Your task to perform on an android device: Clear all items from cart on bestbuy.com. Image 0: 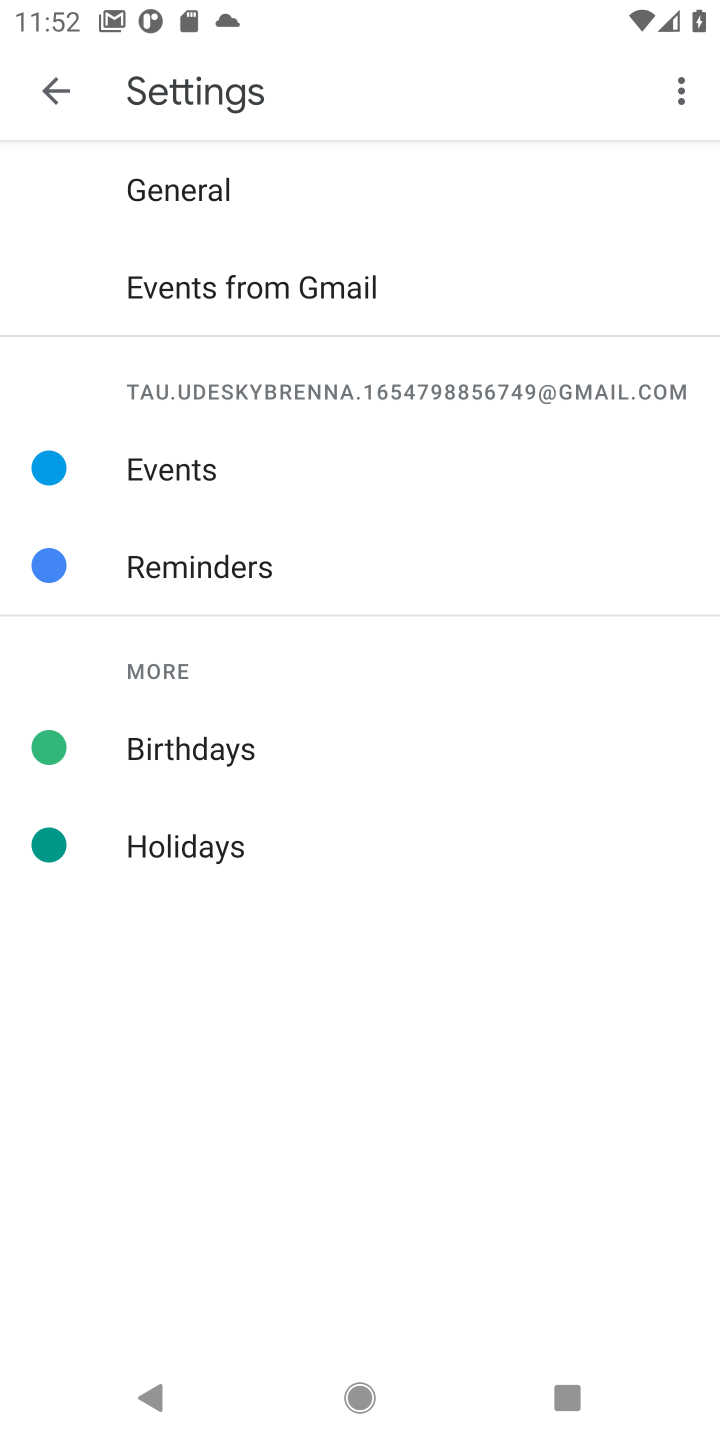
Step 0: press home button
Your task to perform on an android device: Clear all items from cart on bestbuy.com. Image 1: 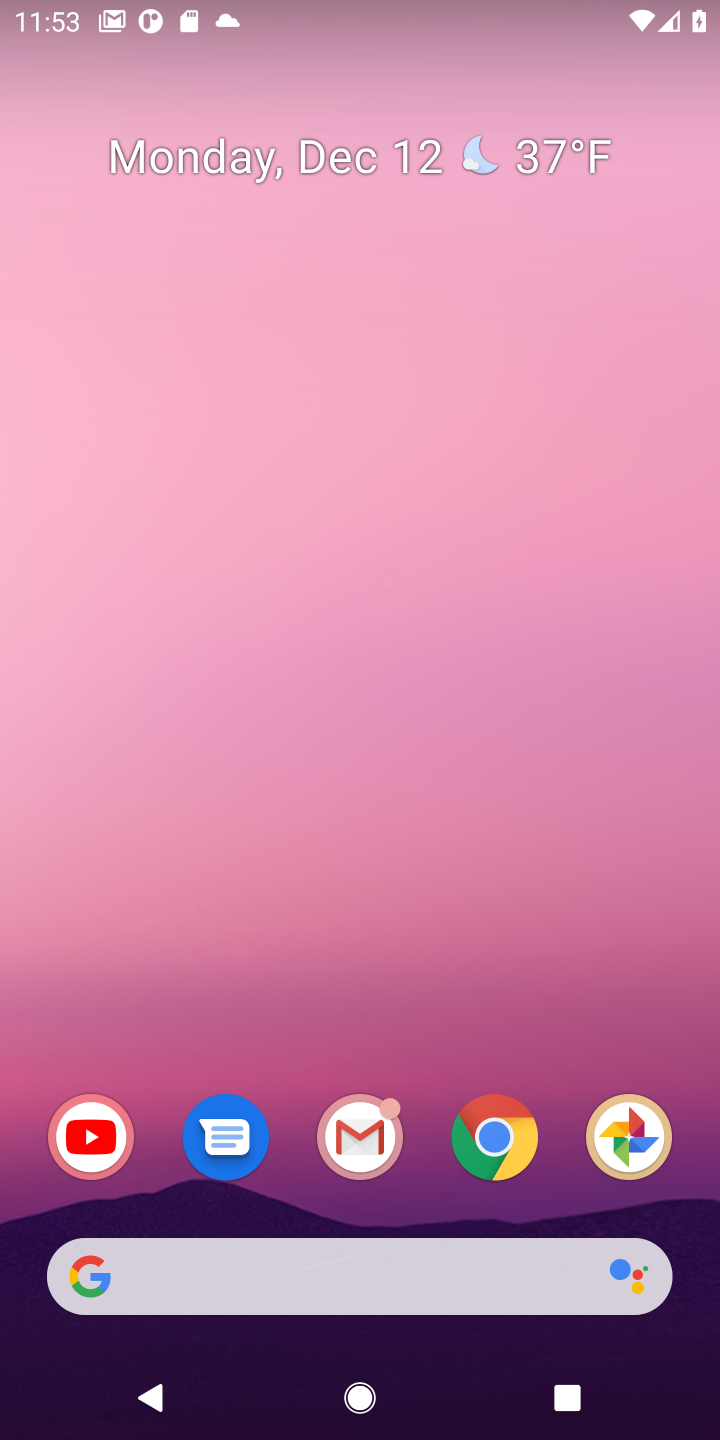
Step 1: click (505, 1116)
Your task to perform on an android device: Clear all items from cart on bestbuy.com. Image 2: 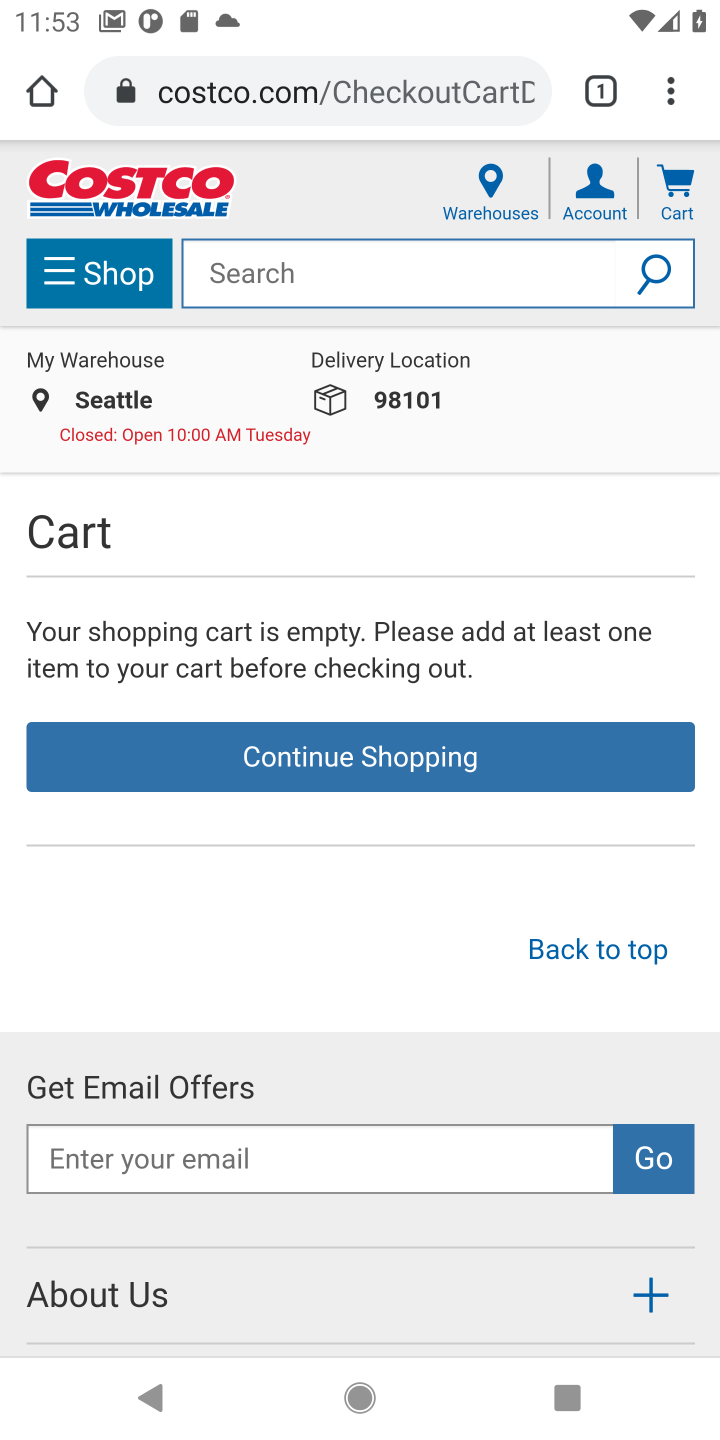
Step 2: click (245, 291)
Your task to perform on an android device: Clear all items from cart on bestbuy.com. Image 3: 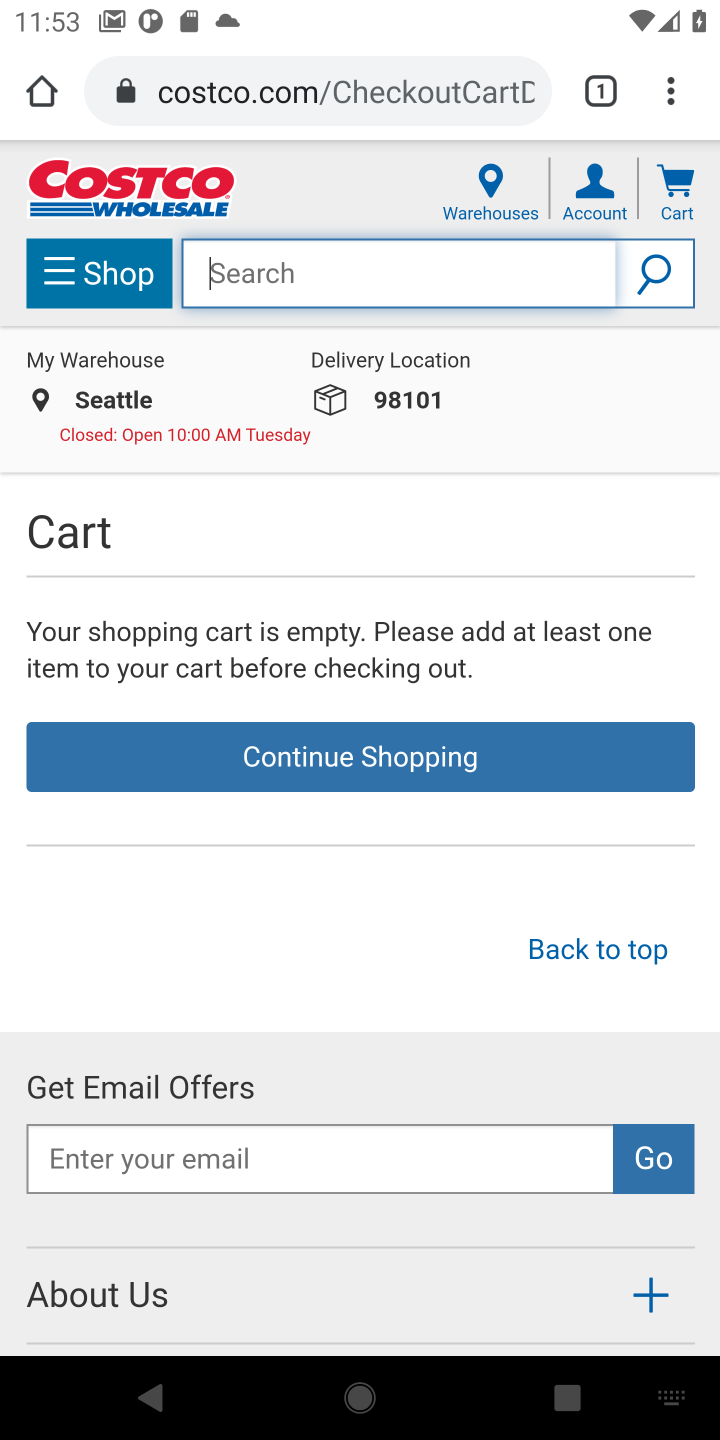
Step 3: click (367, 89)
Your task to perform on an android device: Clear all items from cart on bestbuy.com. Image 4: 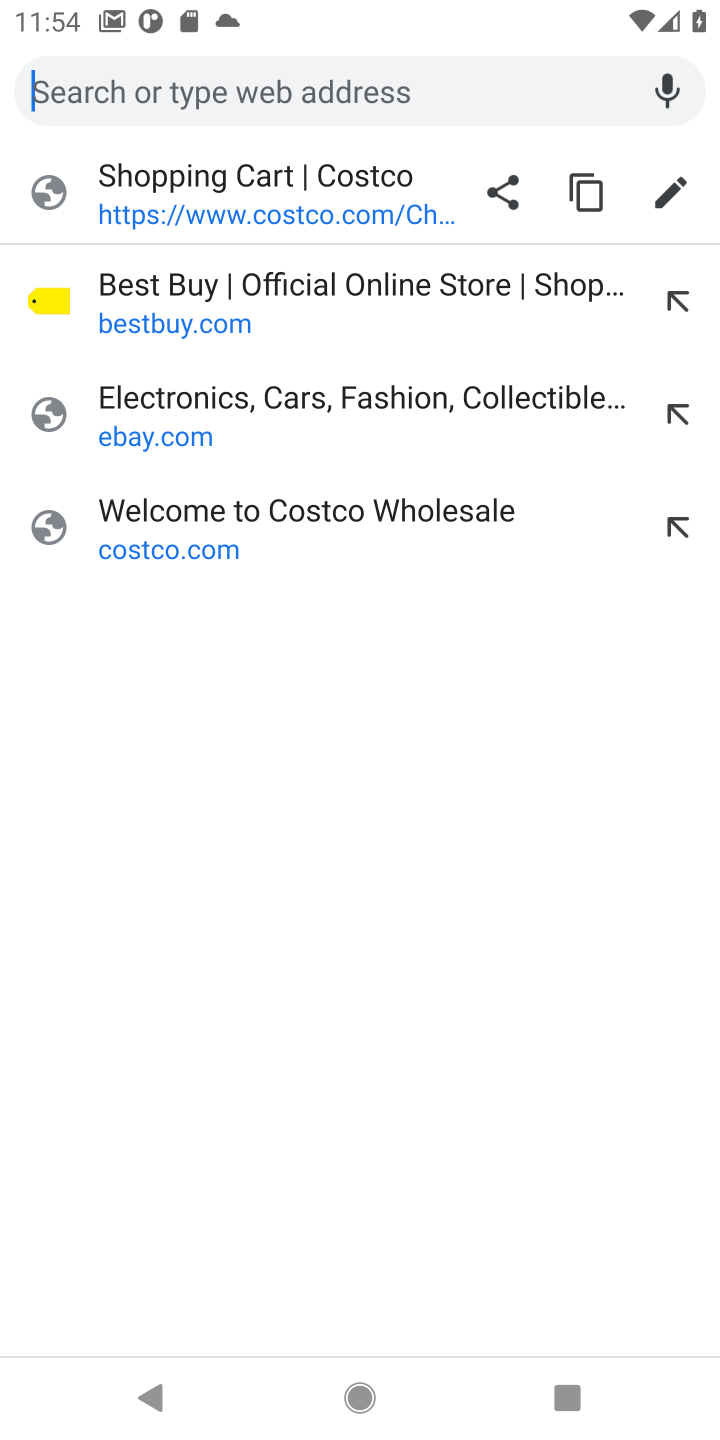
Step 4: type "bestbuy"
Your task to perform on an android device: Clear all items from cart on bestbuy.com. Image 5: 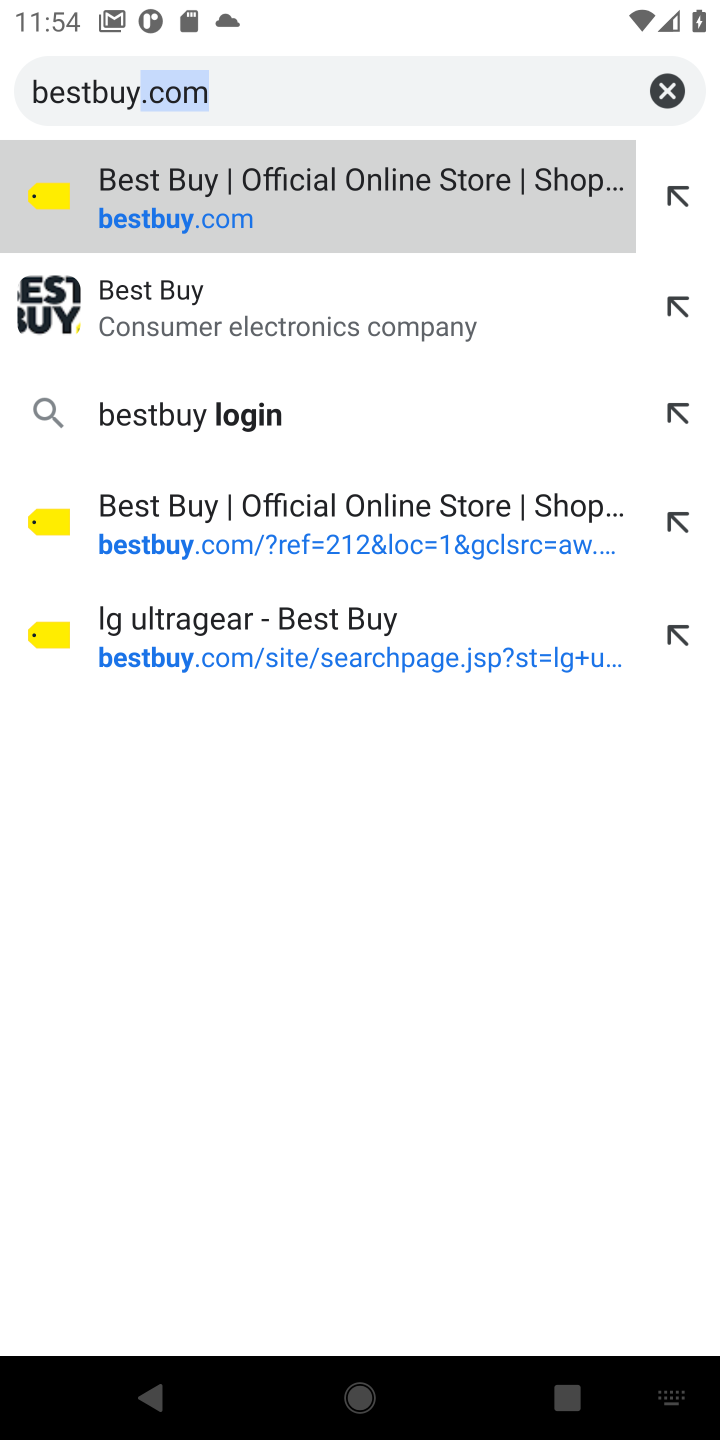
Step 5: click (309, 245)
Your task to perform on an android device: Clear all items from cart on bestbuy.com. Image 6: 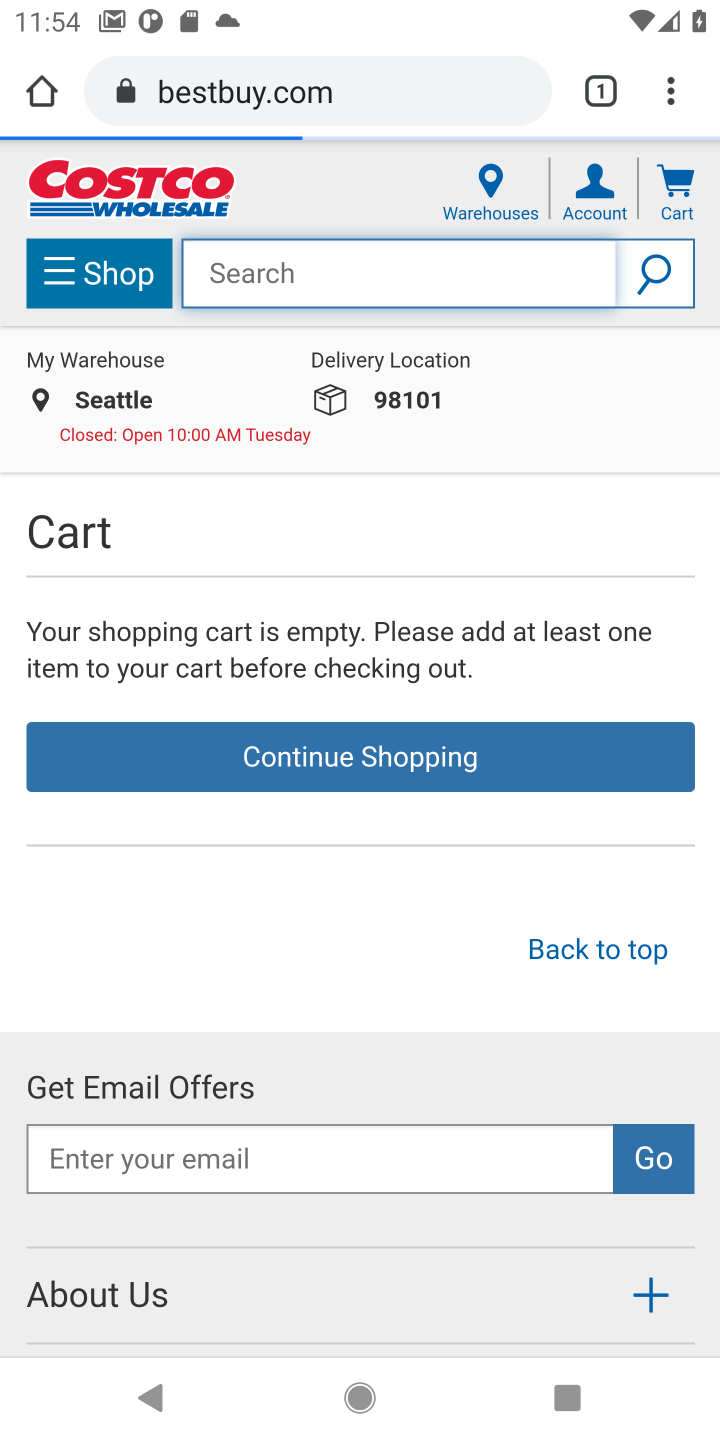
Step 6: task complete